Your task to perform on an android device: Go to settings Image 0: 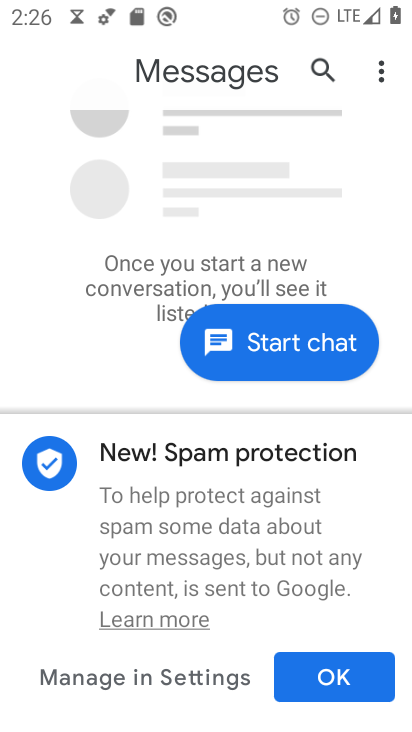
Step 0: press home button
Your task to perform on an android device: Go to settings Image 1: 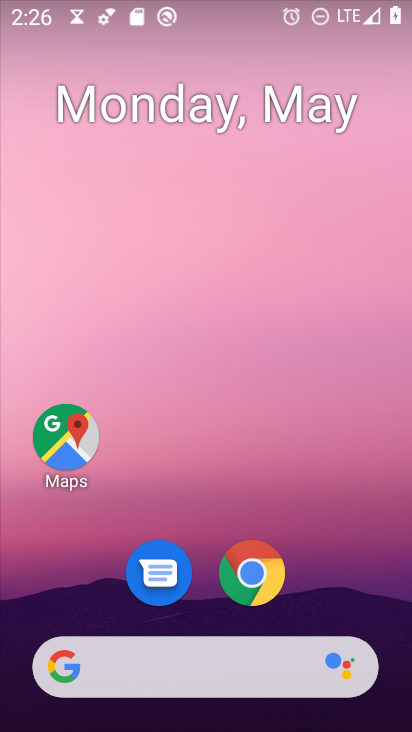
Step 1: drag from (313, 682) to (238, 8)
Your task to perform on an android device: Go to settings Image 2: 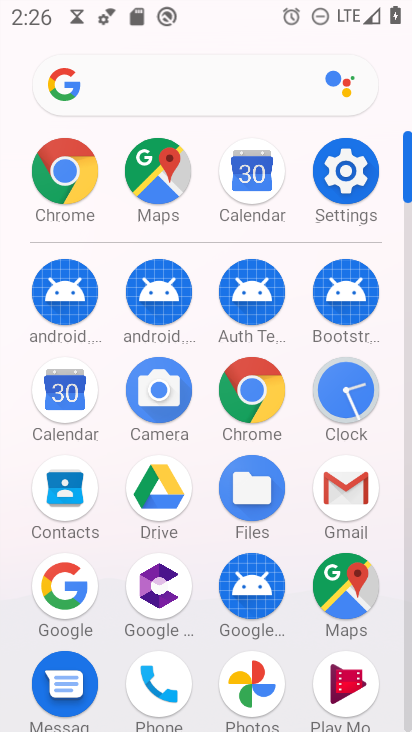
Step 2: click (356, 176)
Your task to perform on an android device: Go to settings Image 3: 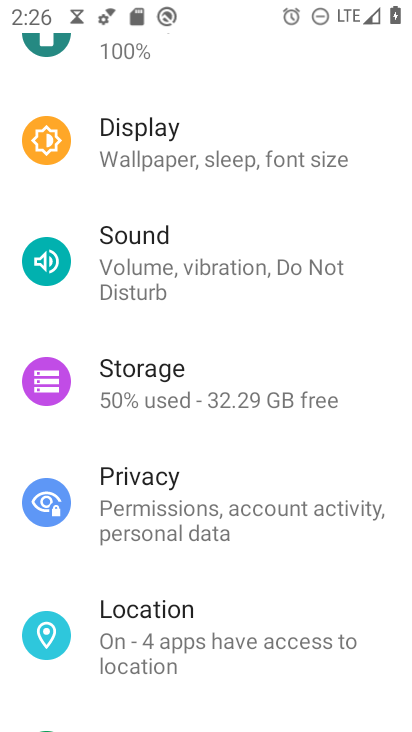
Step 3: task complete